Your task to perform on an android device: turn off sleep mode Image 0: 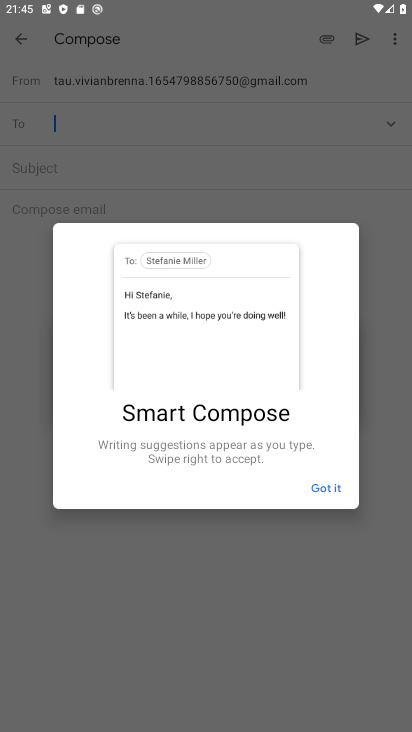
Step 0: press home button
Your task to perform on an android device: turn off sleep mode Image 1: 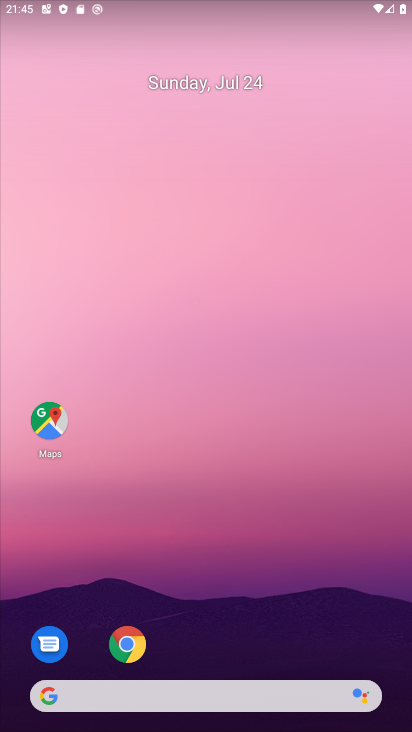
Step 1: click (328, 50)
Your task to perform on an android device: turn off sleep mode Image 2: 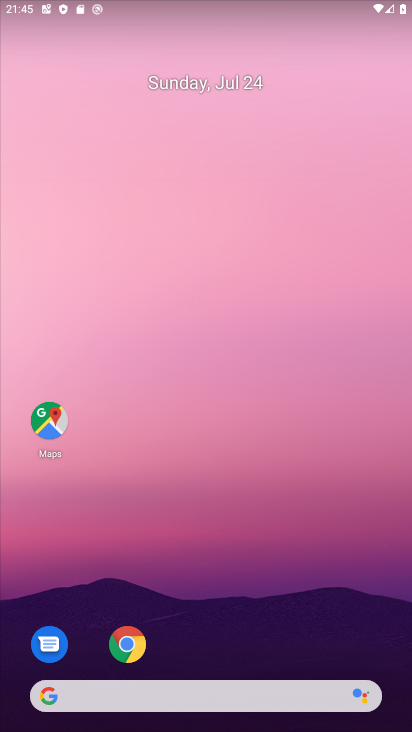
Step 2: drag from (327, 51) to (326, 6)
Your task to perform on an android device: turn off sleep mode Image 3: 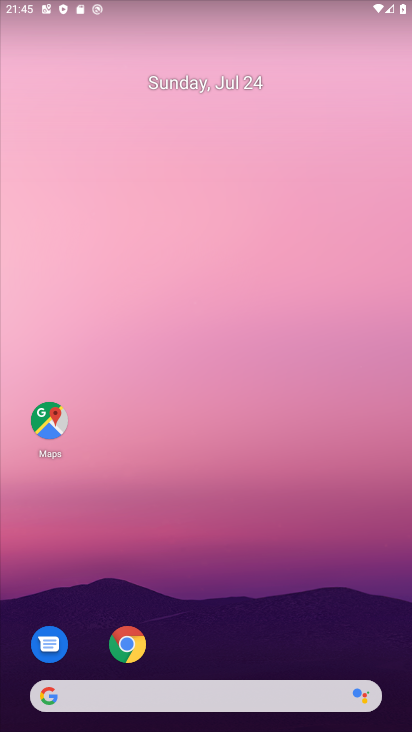
Step 3: drag from (356, 633) to (318, 211)
Your task to perform on an android device: turn off sleep mode Image 4: 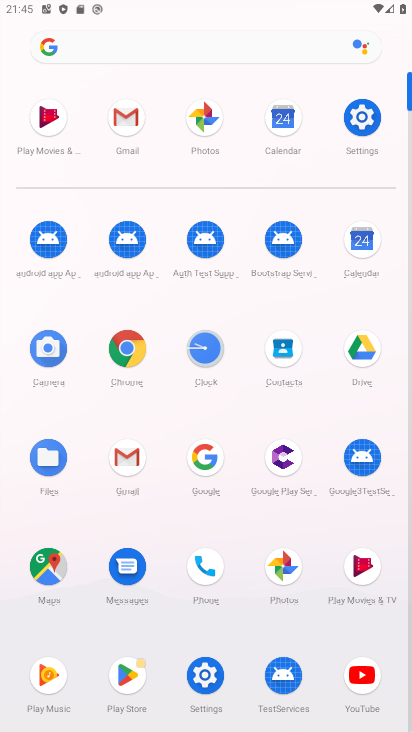
Step 4: click (202, 676)
Your task to perform on an android device: turn off sleep mode Image 5: 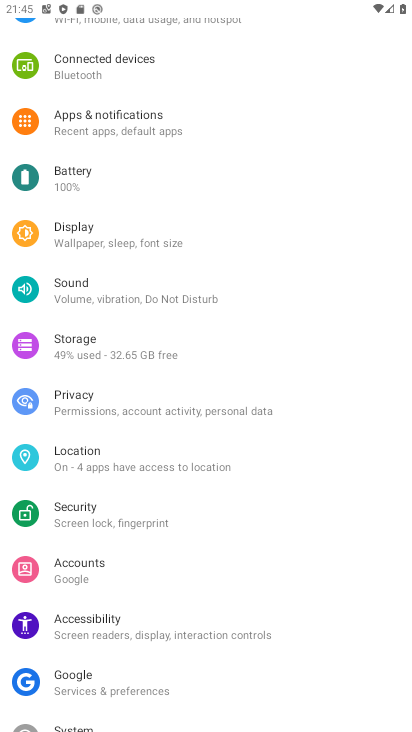
Step 5: drag from (208, 350) to (188, 578)
Your task to perform on an android device: turn off sleep mode Image 6: 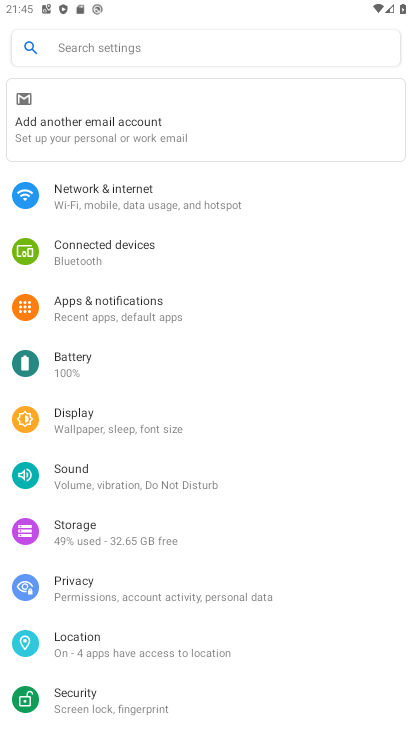
Step 6: click (98, 424)
Your task to perform on an android device: turn off sleep mode Image 7: 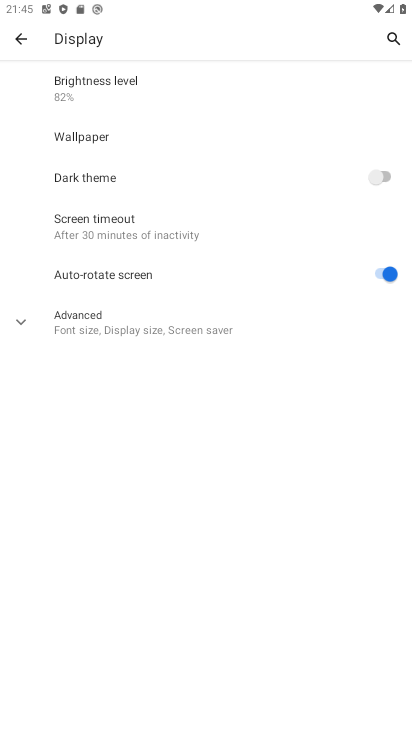
Step 7: click (28, 320)
Your task to perform on an android device: turn off sleep mode Image 8: 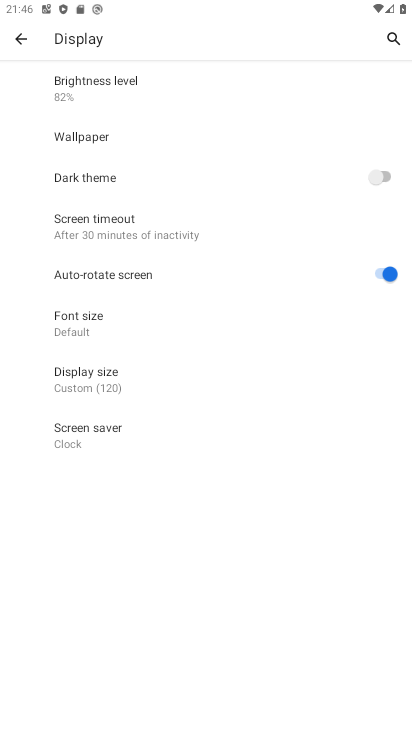
Step 8: task complete